Your task to perform on an android device: see tabs open on other devices in the chrome app Image 0: 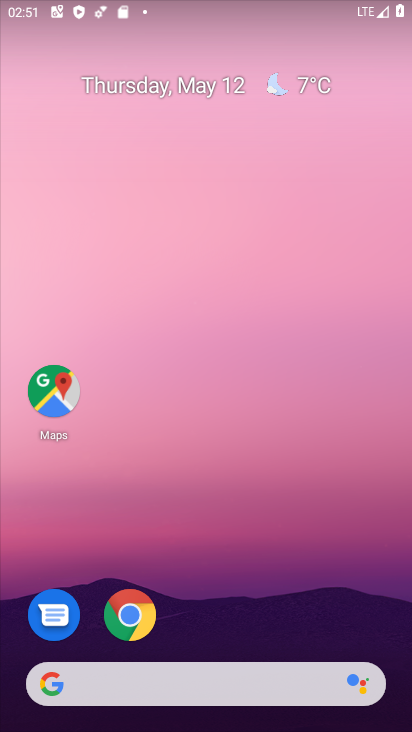
Step 0: click (138, 636)
Your task to perform on an android device: see tabs open on other devices in the chrome app Image 1: 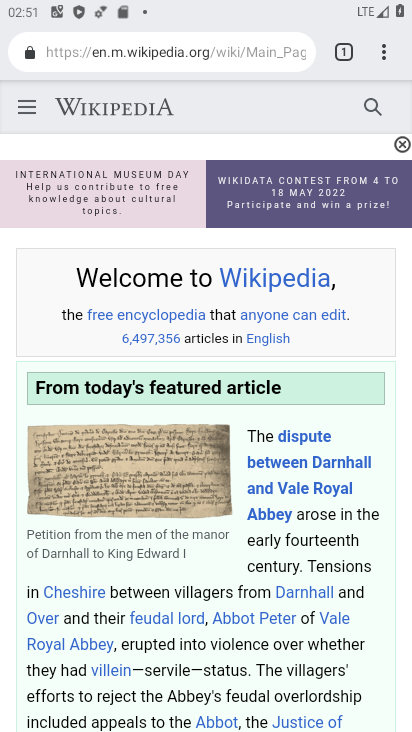
Step 1: click (387, 56)
Your task to perform on an android device: see tabs open on other devices in the chrome app Image 2: 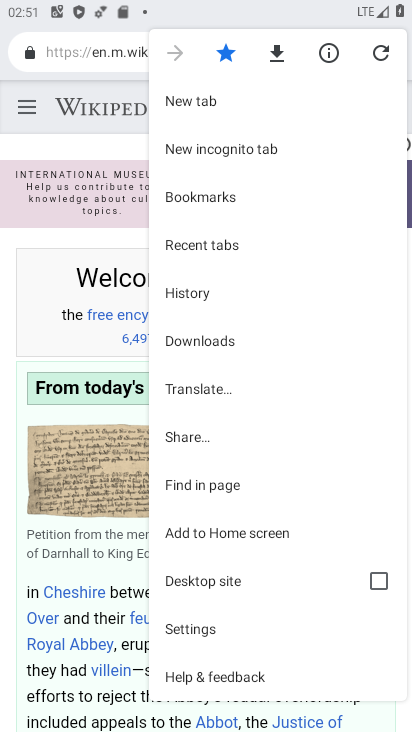
Step 2: click (222, 240)
Your task to perform on an android device: see tabs open on other devices in the chrome app Image 3: 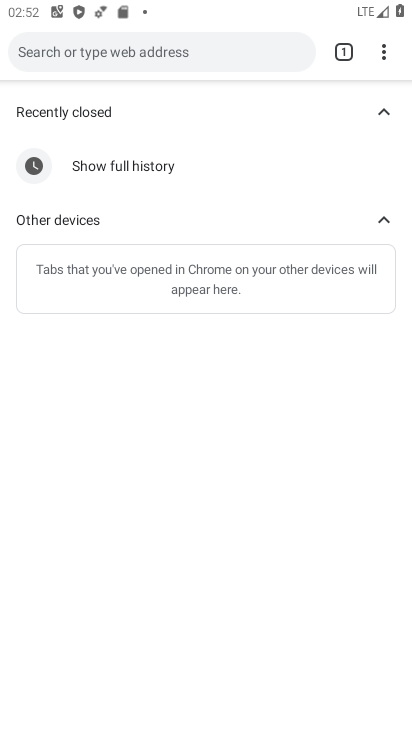
Step 3: task complete